Your task to perform on an android device: Search for "usb-a" on ebay.com, select the first entry, and add it to the cart. Image 0: 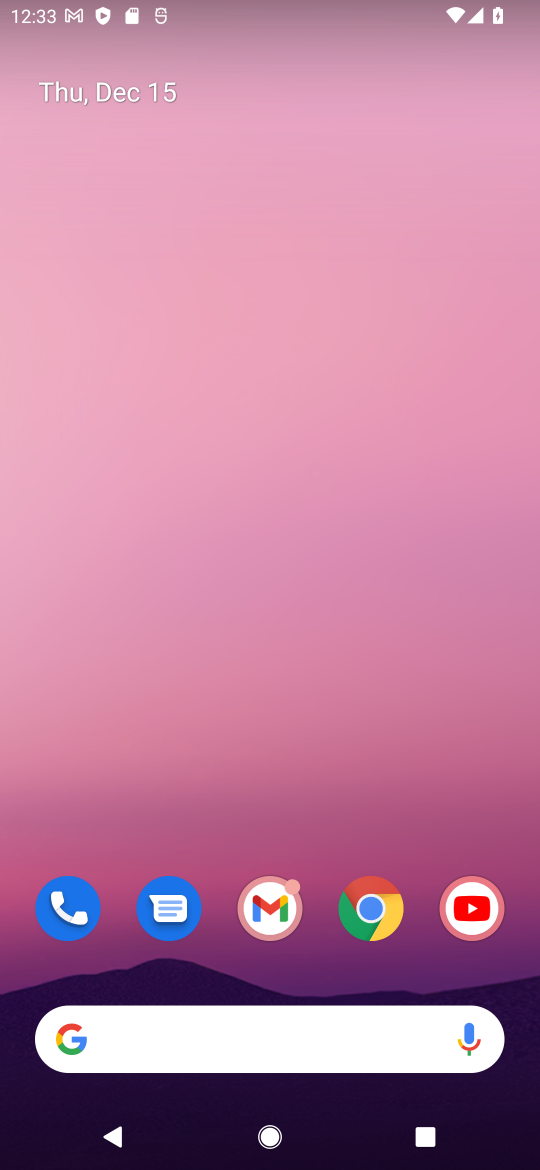
Step 0: click (370, 912)
Your task to perform on an android device: Search for "usb-a" on ebay.com, select the first entry, and add it to the cart. Image 1: 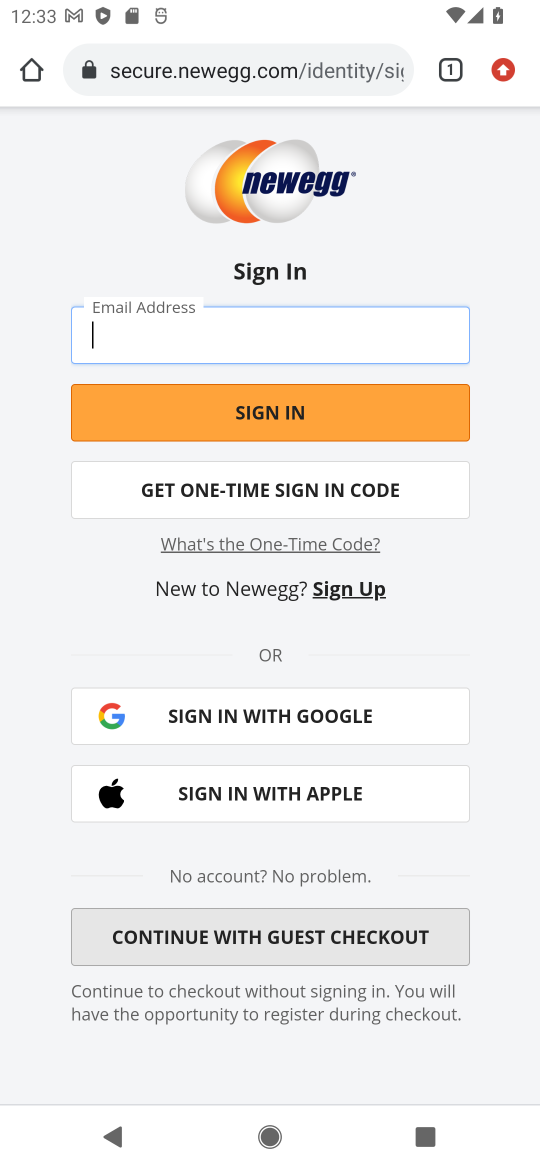
Step 1: click (212, 82)
Your task to perform on an android device: Search for "usb-a" on ebay.com, select the first entry, and add it to the cart. Image 2: 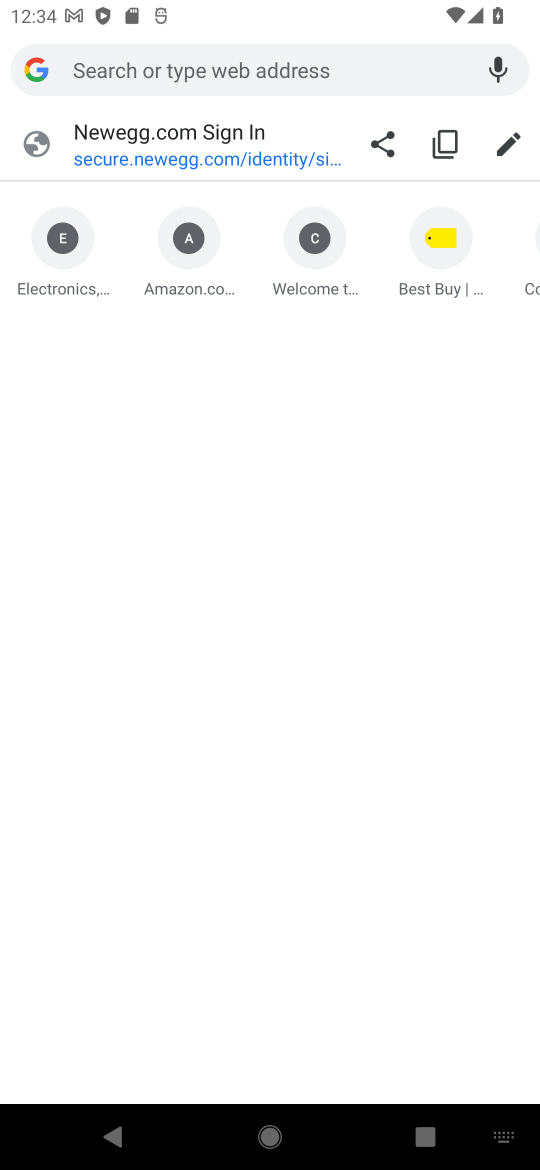
Step 2: type "ebay.com"
Your task to perform on an android device: Search for "usb-a" on ebay.com, select the first entry, and add it to the cart. Image 3: 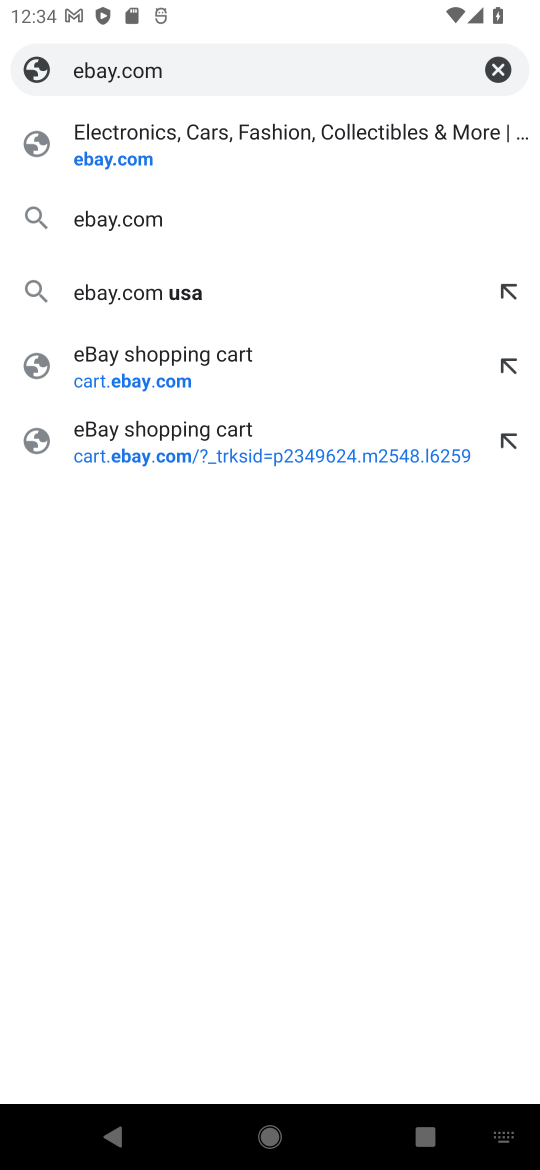
Step 3: click (121, 160)
Your task to perform on an android device: Search for "usb-a" on ebay.com, select the first entry, and add it to the cart. Image 4: 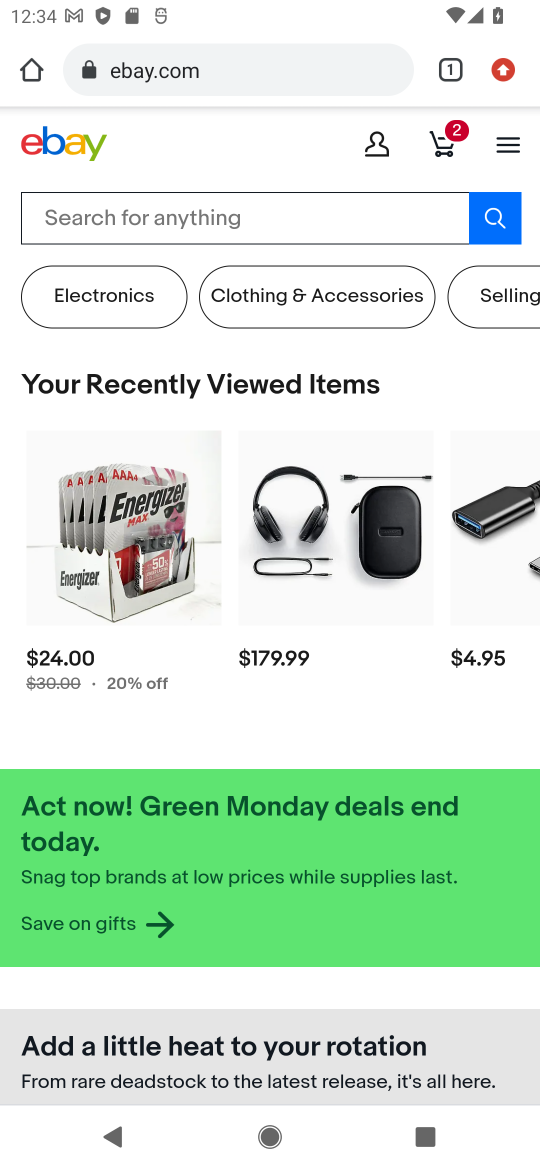
Step 4: click (154, 202)
Your task to perform on an android device: Search for "usb-a" on ebay.com, select the first entry, and add it to the cart. Image 5: 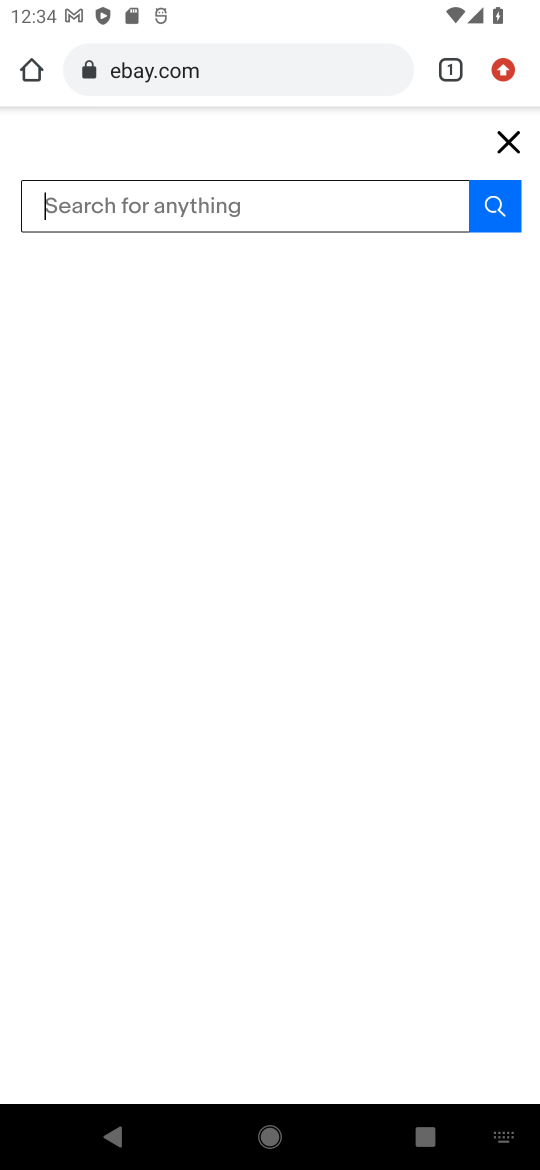
Step 5: type "usb-a"
Your task to perform on an android device: Search for "usb-a" on ebay.com, select the first entry, and add it to the cart. Image 6: 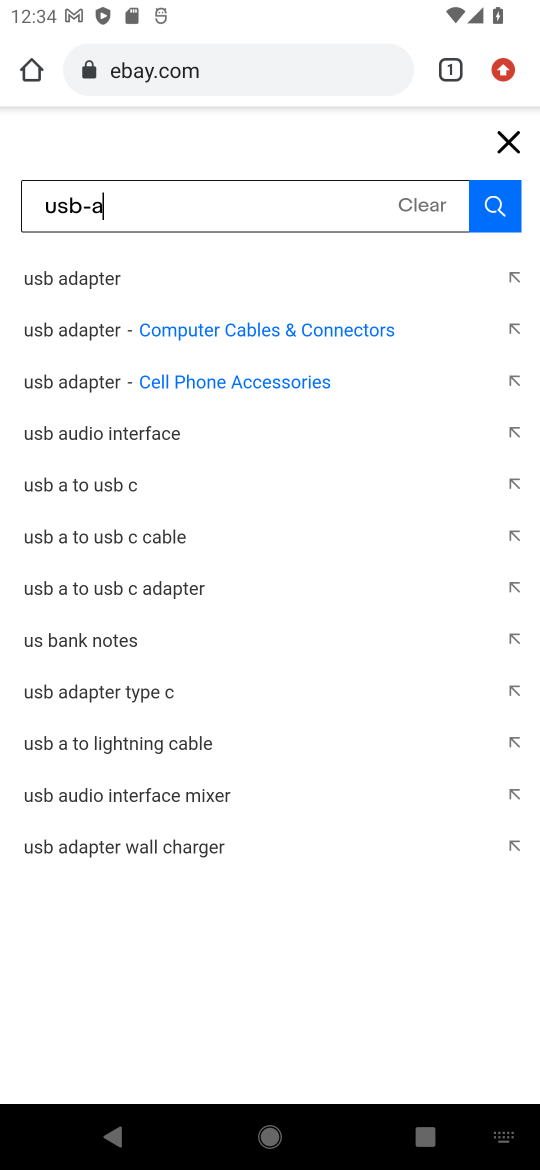
Step 6: click (494, 202)
Your task to perform on an android device: Search for "usb-a" on ebay.com, select the first entry, and add it to the cart. Image 7: 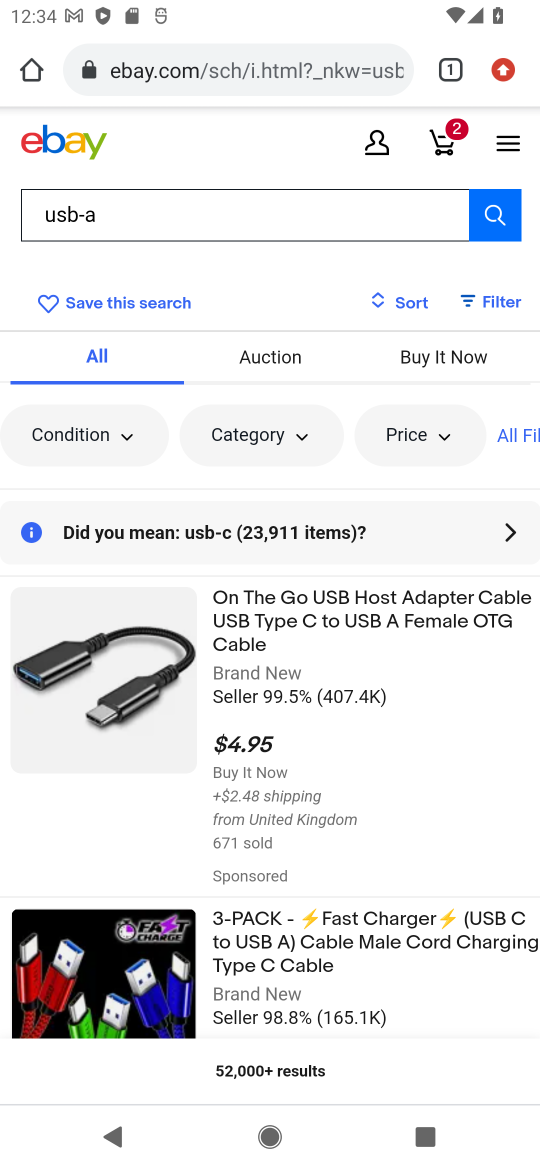
Step 7: click (313, 630)
Your task to perform on an android device: Search for "usb-a" on ebay.com, select the first entry, and add it to the cart. Image 8: 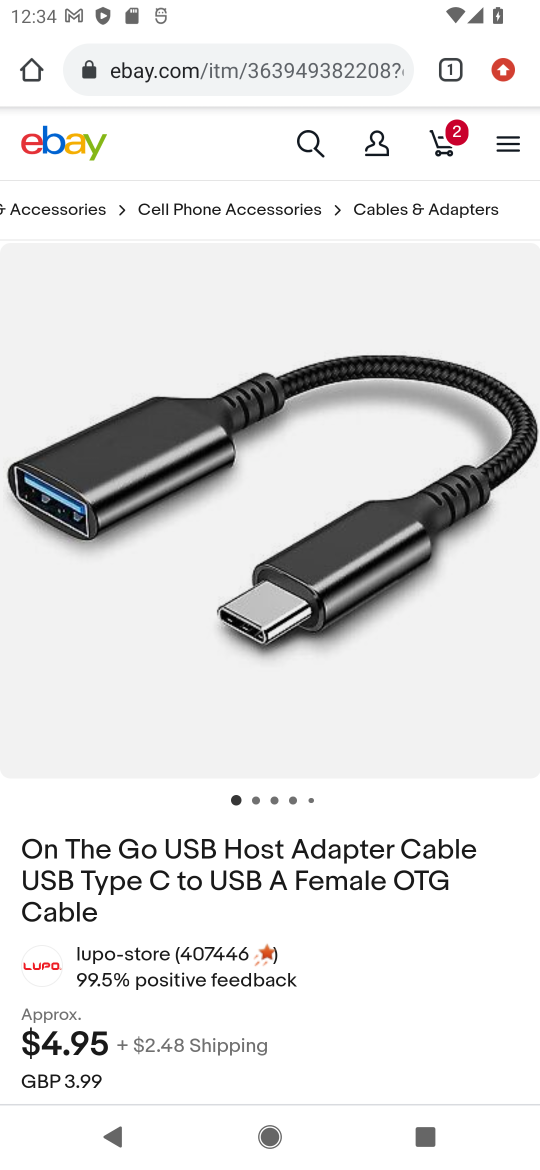
Step 8: drag from (309, 924) to (307, 484)
Your task to perform on an android device: Search for "usb-a" on ebay.com, select the first entry, and add it to the cart. Image 9: 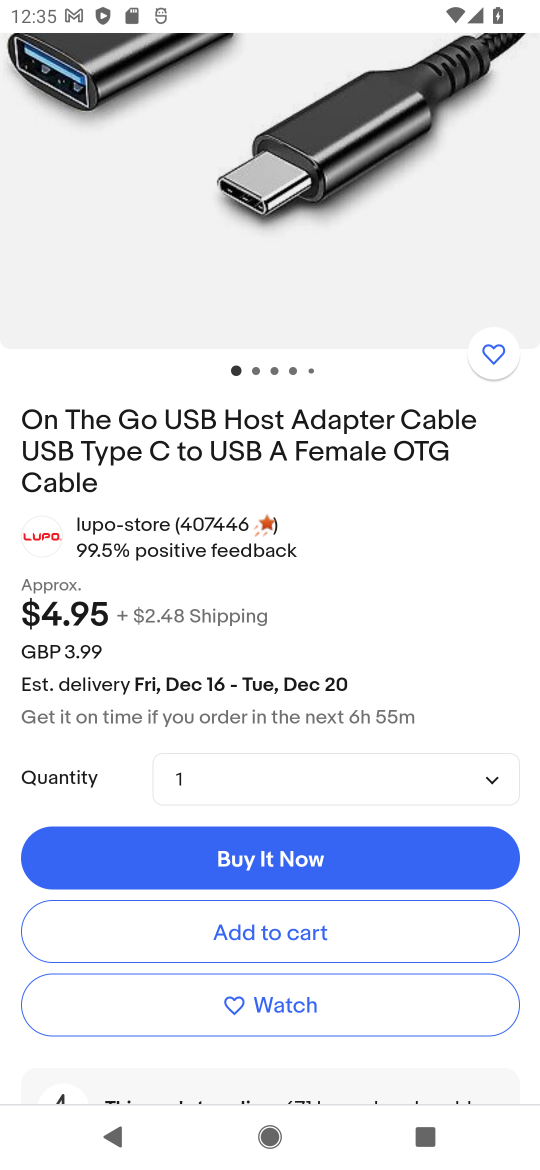
Step 9: click (243, 931)
Your task to perform on an android device: Search for "usb-a" on ebay.com, select the first entry, and add it to the cart. Image 10: 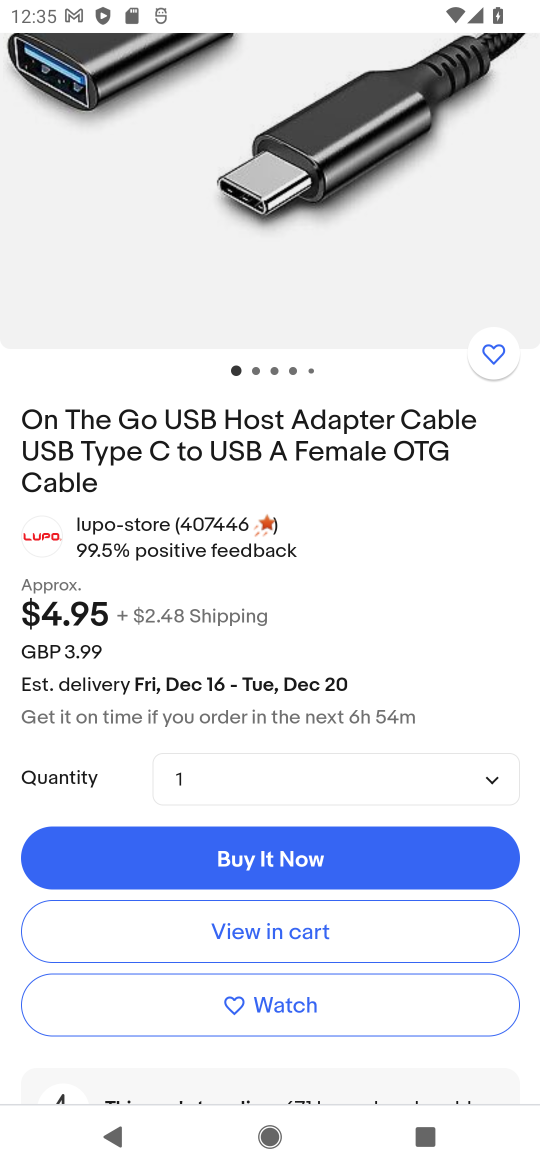
Step 10: task complete